Your task to perform on an android device: Go to settings Image 0: 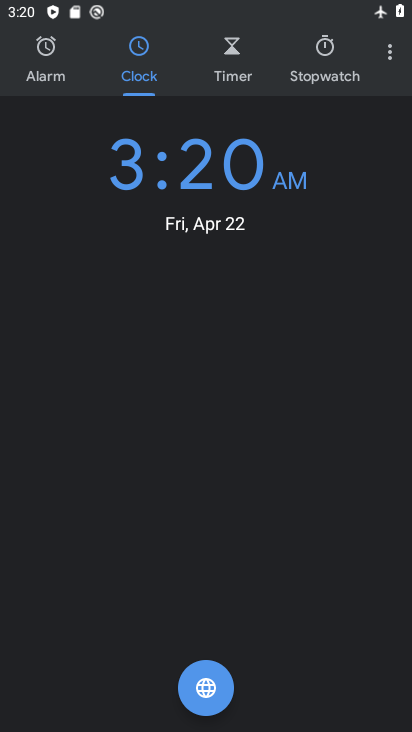
Step 0: press home button
Your task to perform on an android device: Go to settings Image 1: 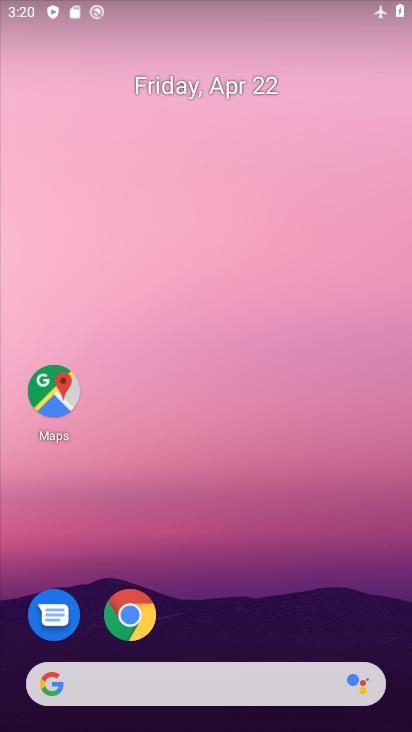
Step 1: drag from (219, 663) to (311, 297)
Your task to perform on an android device: Go to settings Image 2: 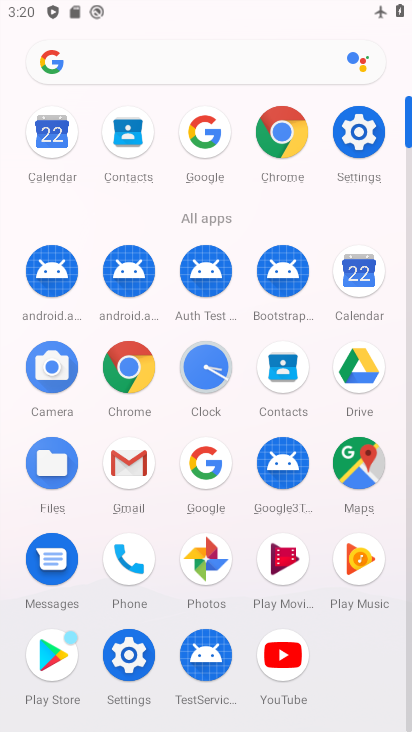
Step 2: click (351, 142)
Your task to perform on an android device: Go to settings Image 3: 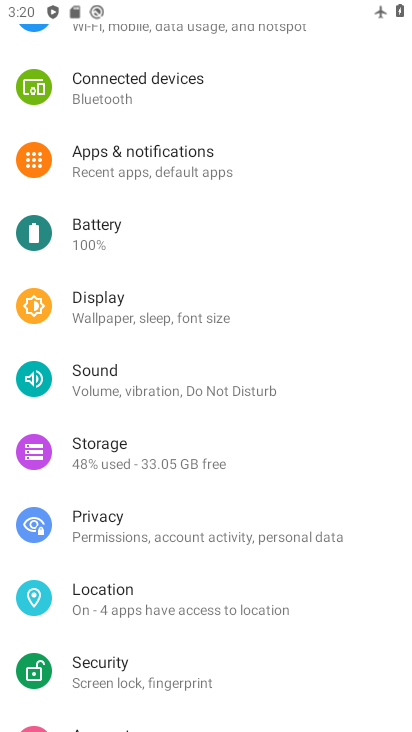
Step 3: task complete